Your task to perform on an android device: Do I have any events today? Image 0: 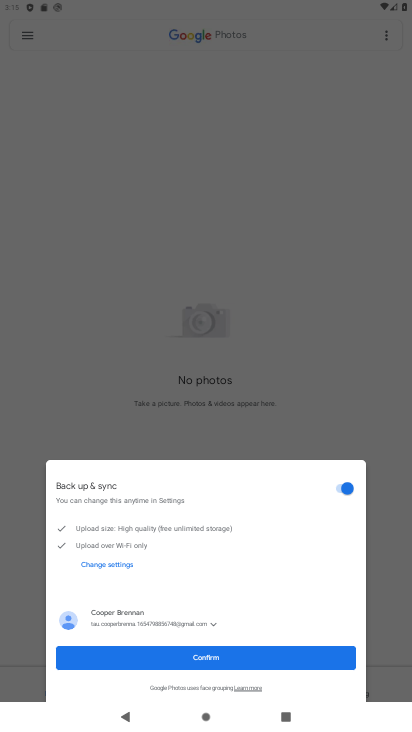
Step 0: press home button
Your task to perform on an android device: Do I have any events today? Image 1: 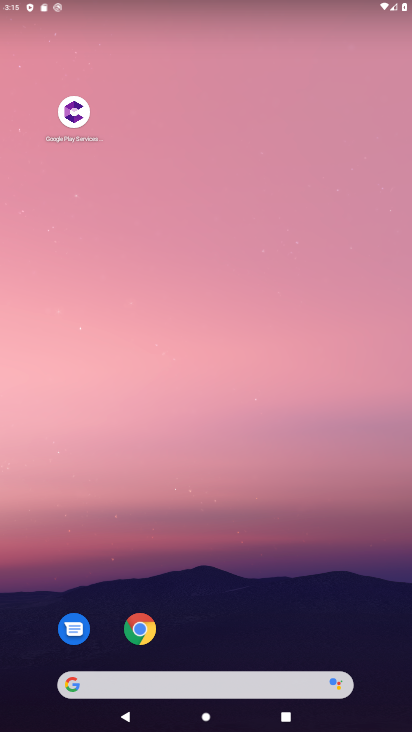
Step 1: drag from (301, 577) to (200, 190)
Your task to perform on an android device: Do I have any events today? Image 2: 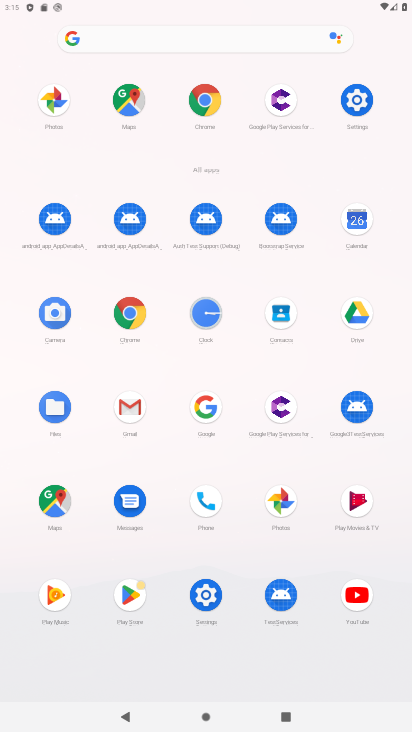
Step 2: click (363, 225)
Your task to perform on an android device: Do I have any events today? Image 3: 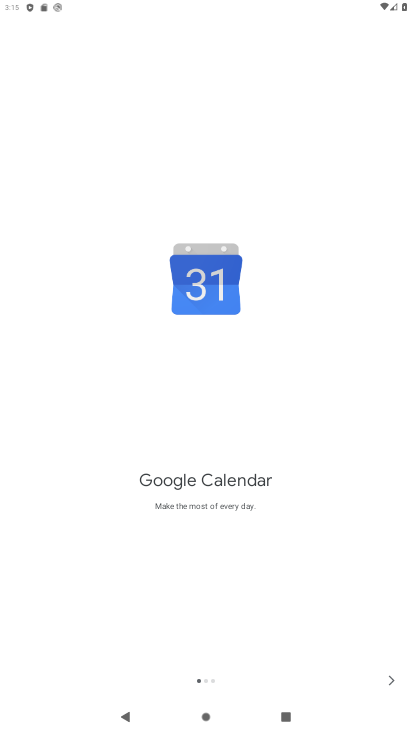
Step 3: click (391, 677)
Your task to perform on an android device: Do I have any events today? Image 4: 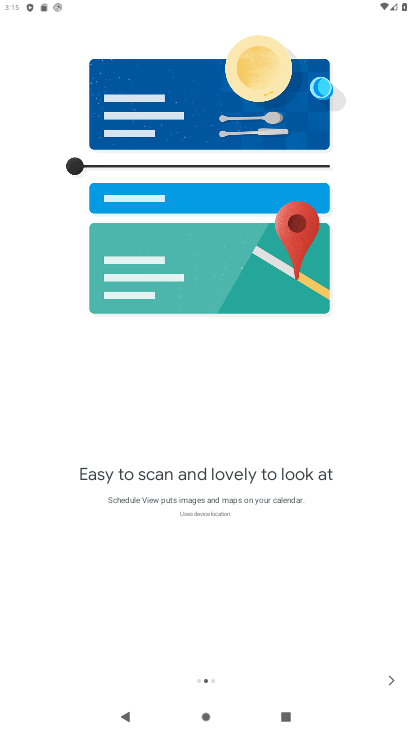
Step 4: click (391, 677)
Your task to perform on an android device: Do I have any events today? Image 5: 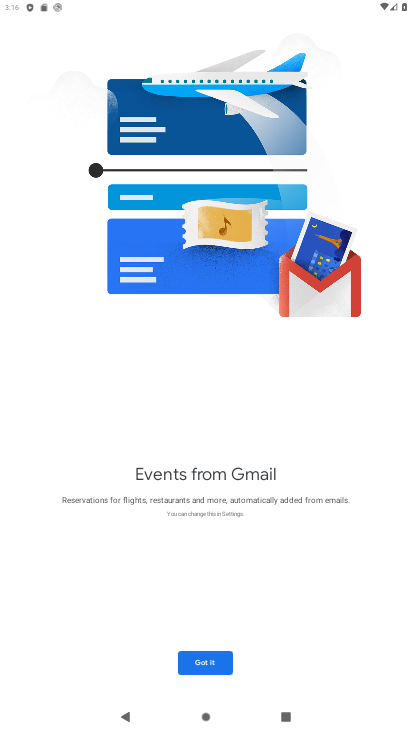
Step 5: click (215, 660)
Your task to perform on an android device: Do I have any events today? Image 6: 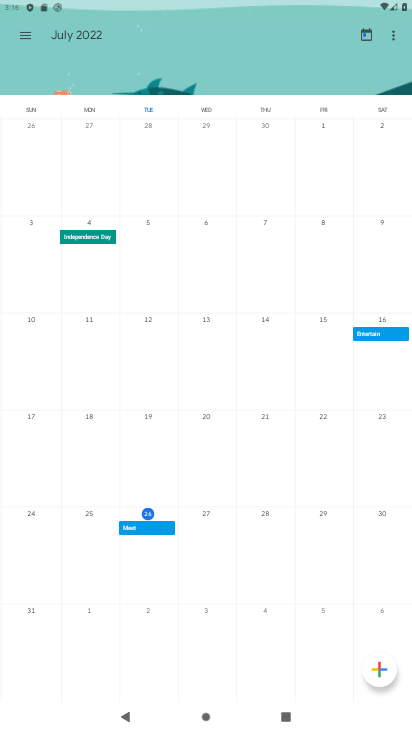
Step 6: click (31, 35)
Your task to perform on an android device: Do I have any events today? Image 7: 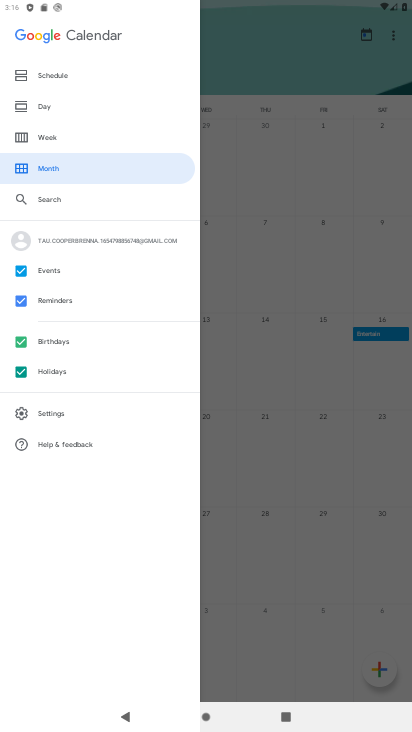
Step 7: click (64, 109)
Your task to perform on an android device: Do I have any events today? Image 8: 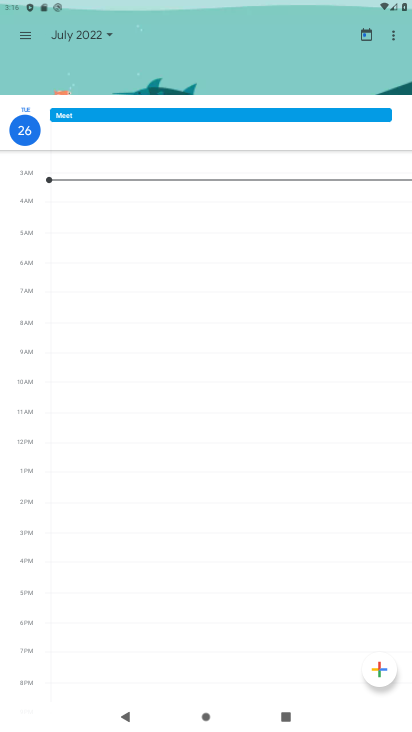
Step 8: task complete